Your task to perform on an android device: Show the shopping cart on bestbuy. Image 0: 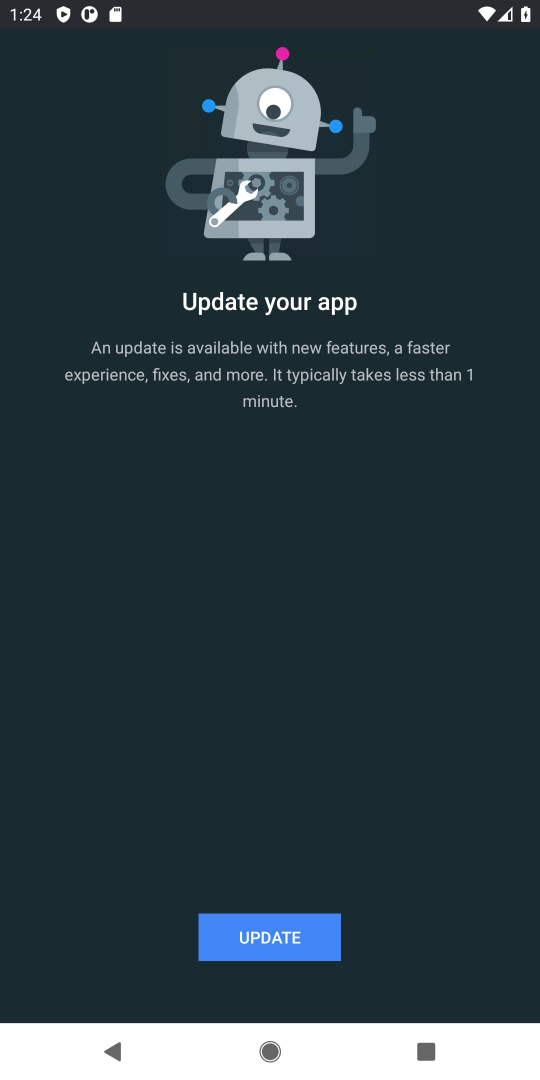
Step 0: press home button
Your task to perform on an android device: Show the shopping cart on bestbuy. Image 1: 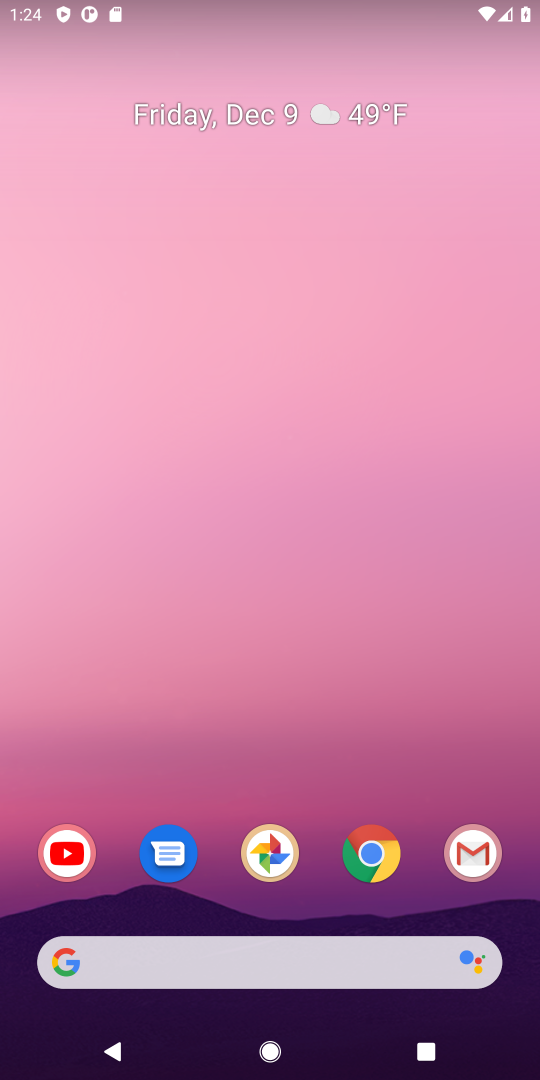
Step 1: drag from (348, 958) to (416, 146)
Your task to perform on an android device: Show the shopping cart on bestbuy. Image 2: 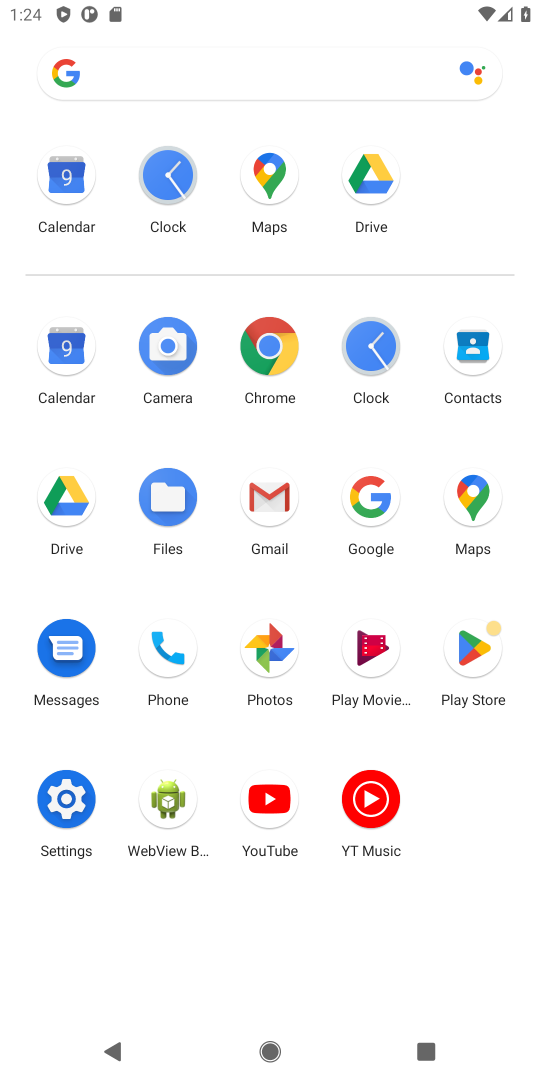
Step 2: click (370, 514)
Your task to perform on an android device: Show the shopping cart on bestbuy. Image 3: 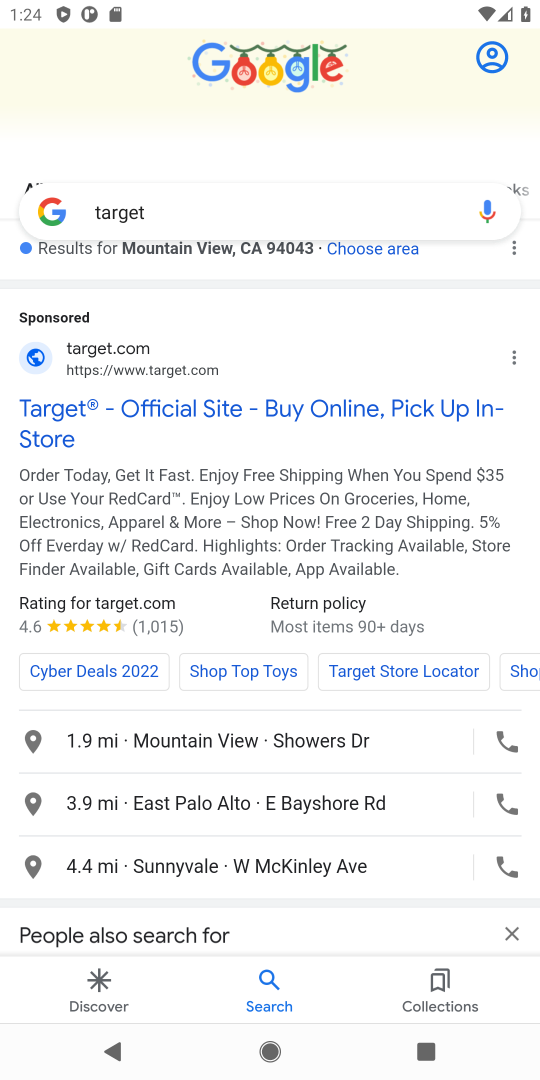
Step 3: click (203, 223)
Your task to perform on an android device: Show the shopping cart on bestbuy. Image 4: 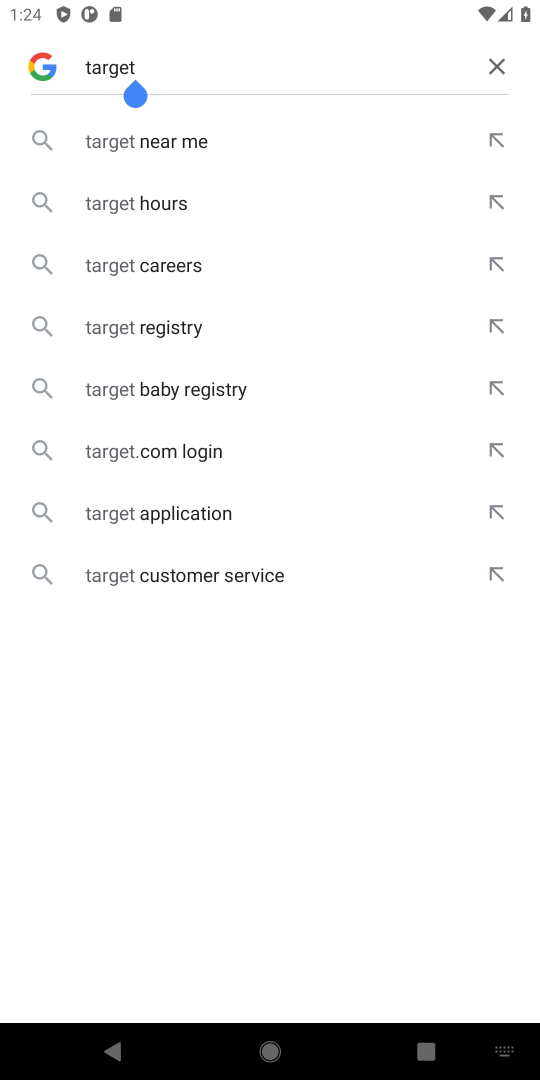
Step 4: click (497, 67)
Your task to perform on an android device: Show the shopping cart on bestbuy. Image 5: 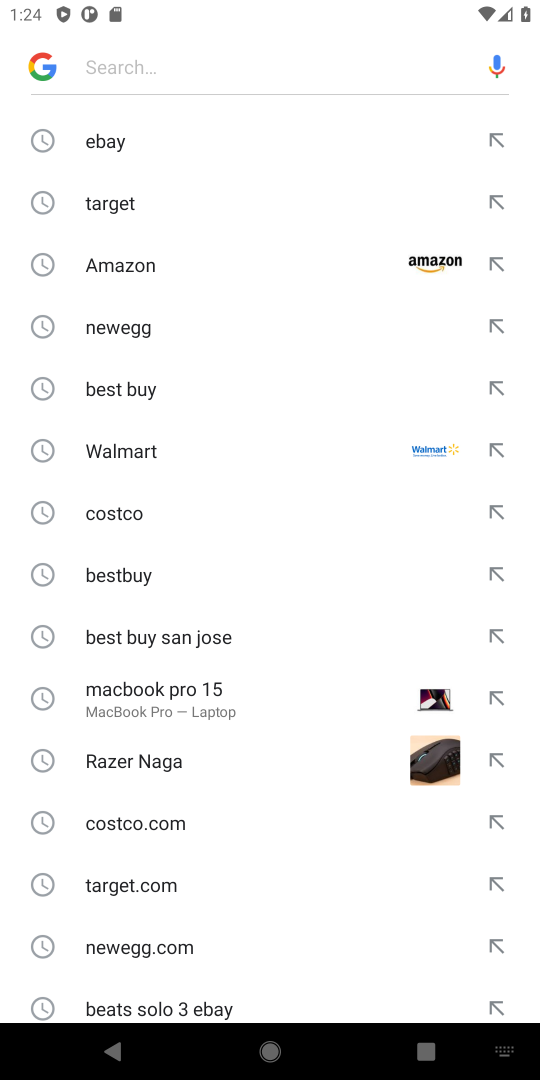
Step 5: click (140, 389)
Your task to perform on an android device: Show the shopping cart on bestbuy. Image 6: 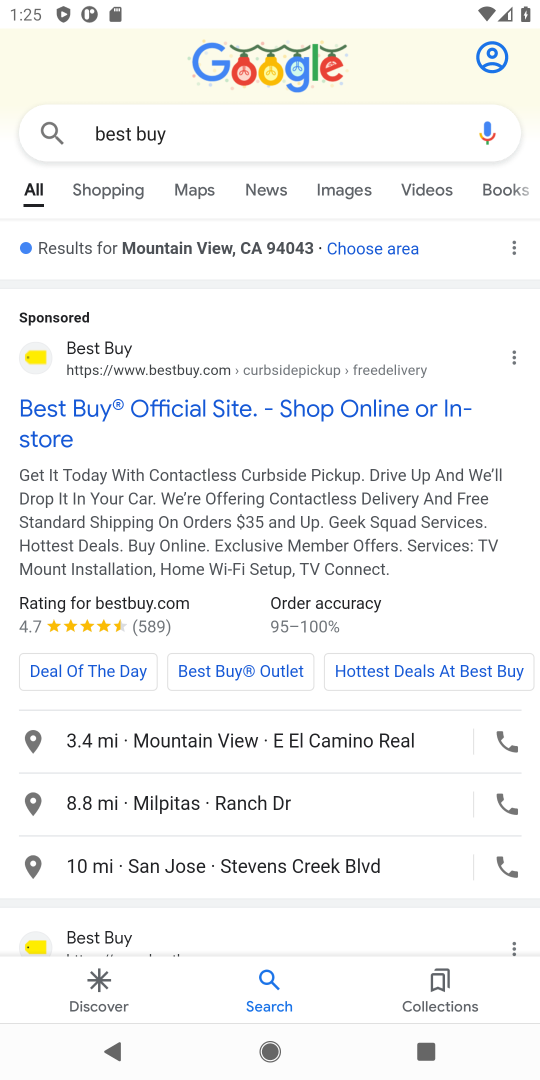
Step 6: click (195, 424)
Your task to perform on an android device: Show the shopping cart on bestbuy. Image 7: 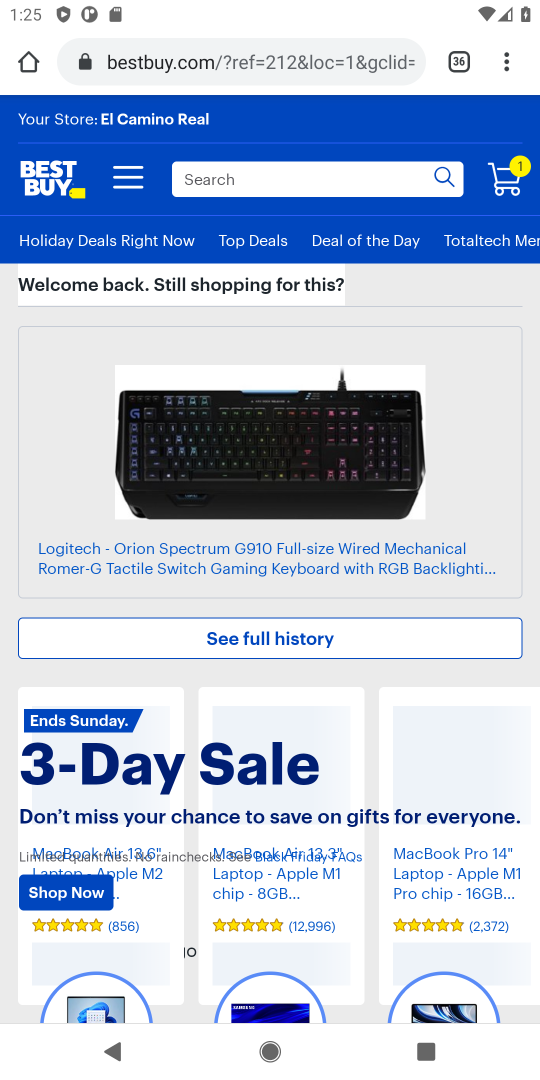
Step 7: click (262, 182)
Your task to perform on an android device: Show the shopping cart on bestbuy. Image 8: 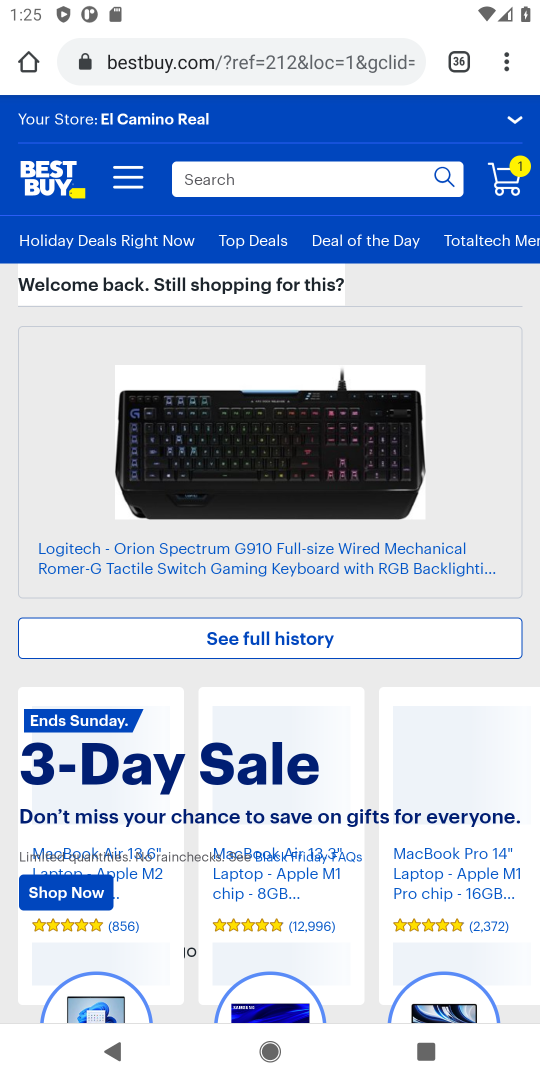
Step 8: click (515, 176)
Your task to perform on an android device: Show the shopping cart on bestbuy. Image 9: 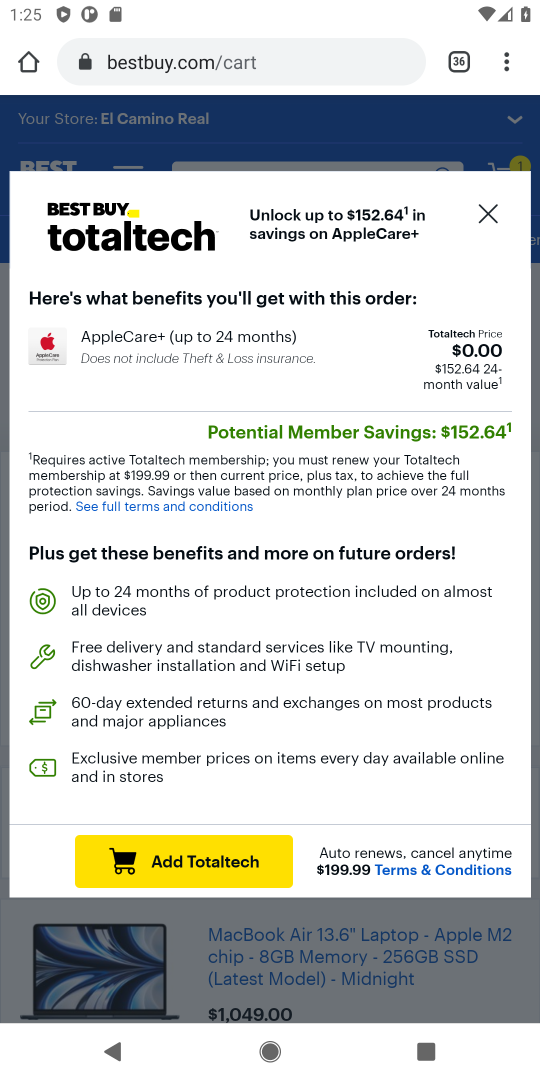
Step 9: click (490, 213)
Your task to perform on an android device: Show the shopping cart on bestbuy. Image 10: 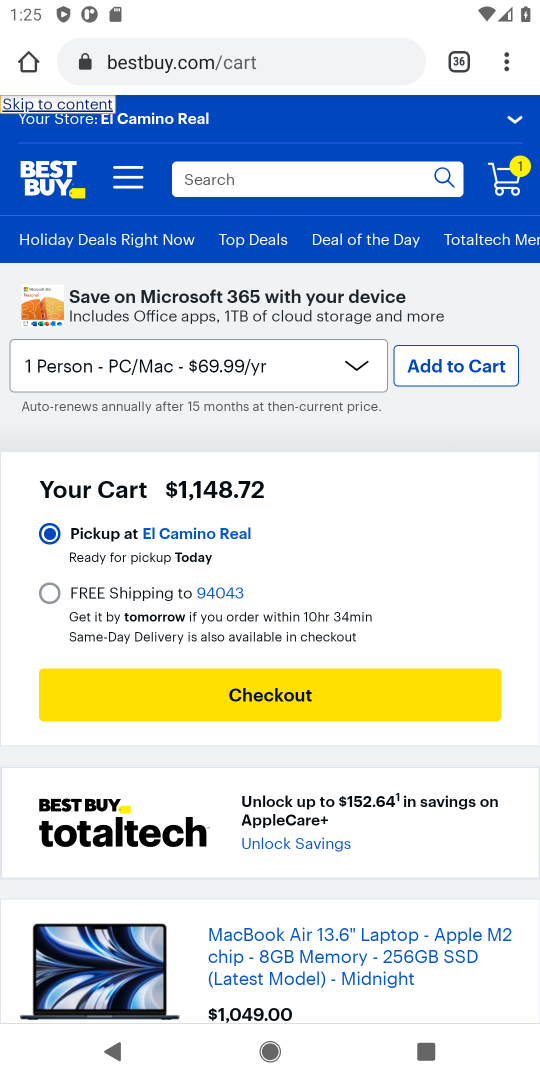
Step 10: task complete